Your task to perform on an android device: toggle notifications settings in the gmail app Image 0: 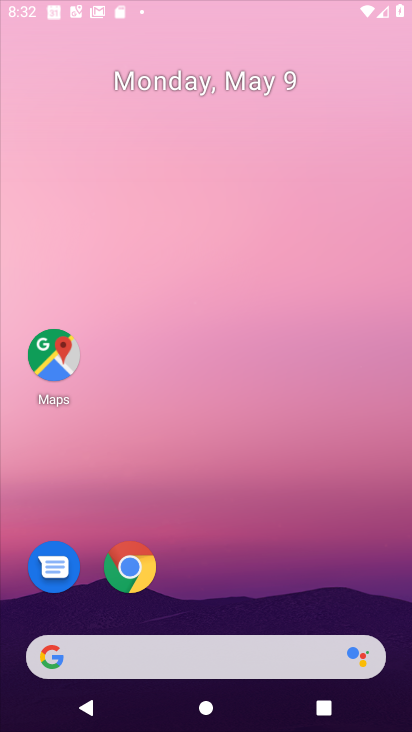
Step 0: drag from (224, 488) to (277, 185)
Your task to perform on an android device: toggle notifications settings in the gmail app Image 1: 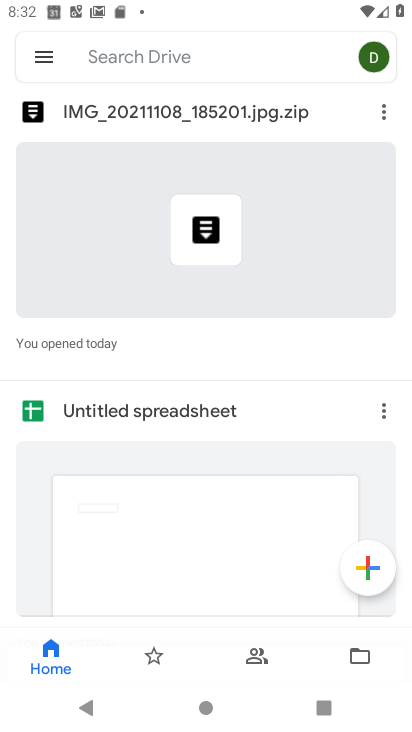
Step 1: drag from (217, 535) to (266, 298)
Your task to perform on an android device: toggle notifications settings in the gmail app Image 2: 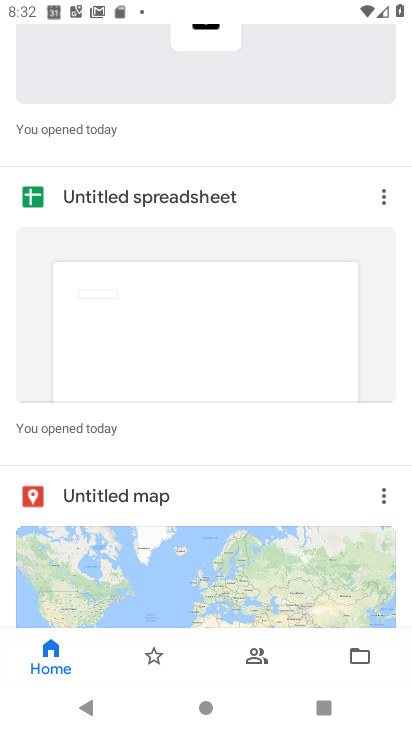
Step 2: drag from (211, 498) to (315, 209)
Your task to perform on an android device: toggle notifications settings in the gmail app Image 3: 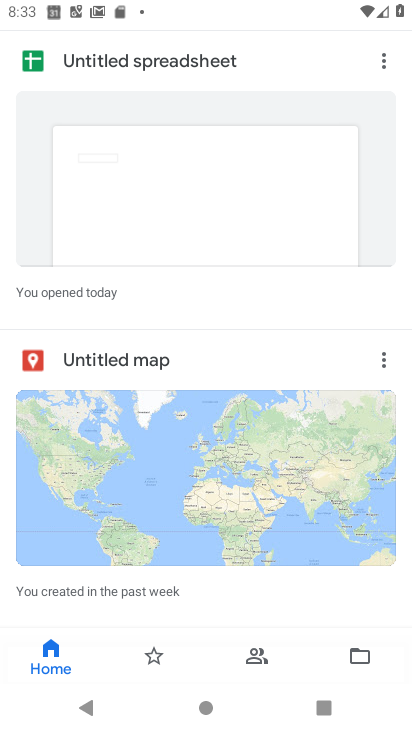
Step 3: drag from (211, 180) to (268, 706)
Your task to perform on an android device: toggle notifications settings in the gmail app Image 4: 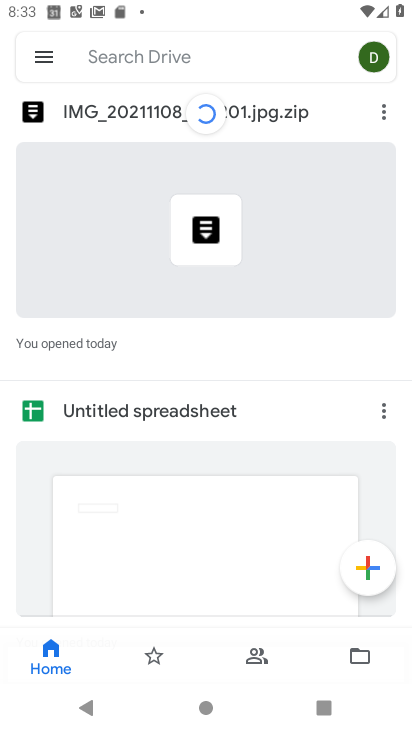
Step 4: press home button
Your task to perform on an android device: toggle notifications settings in the gmail app Image 5: 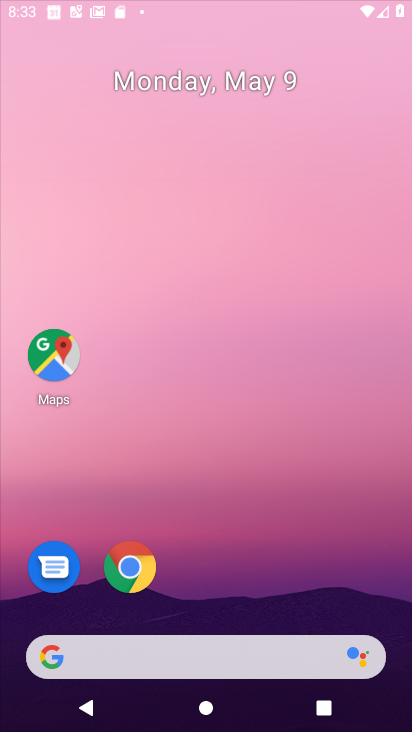
Step 5: drag from (194, 575) to (272, 34)
Your task to perform on an android device: toggle notifications settings in the gmail app Image 6: 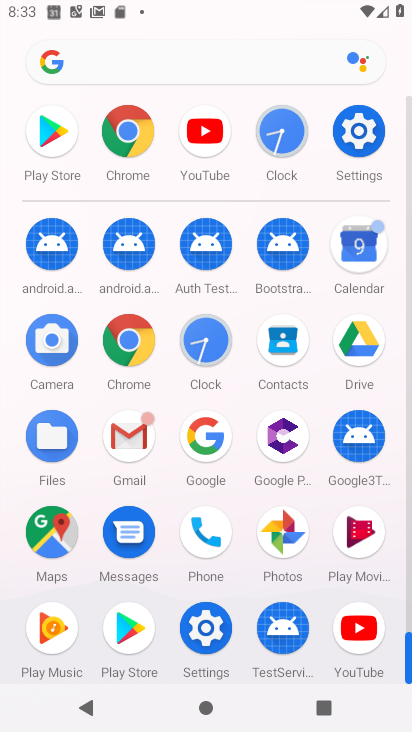
Step 6: click (123, 426)
Your task to perform on an android device: toggle notifications settings in the gmail app Image 7: 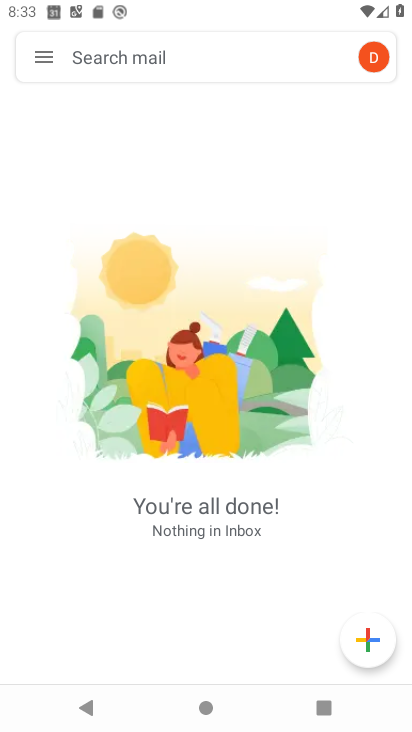
Step 7: click (40, 56)
Your task to perform on an android device: toggle notifications settings in the gmail app Image 8: 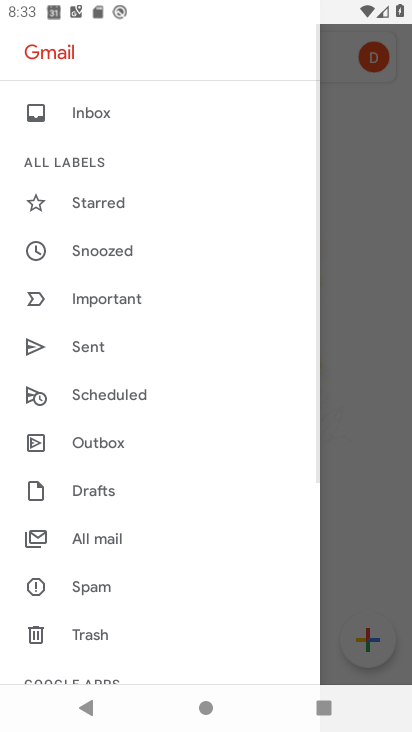
Step 8: drag from (117, 594) to (213, 80)
Your task to perform on an android device: toggle notifications settings in the gmail app Image 9: 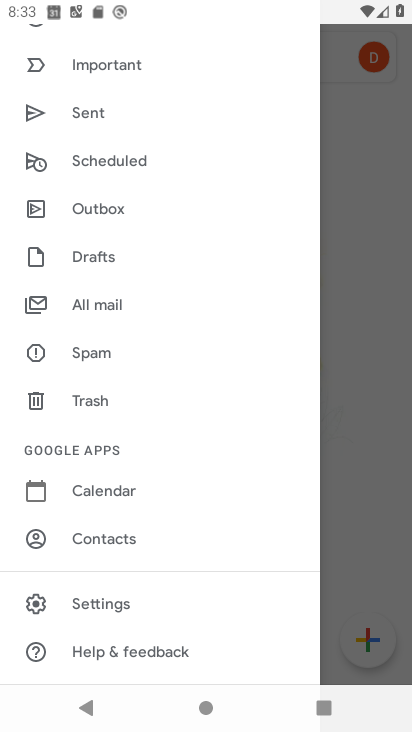
Step 9: click (87, 600)
Your task to perform on an android device: toggle notifications settings in the gmail app Image 10: 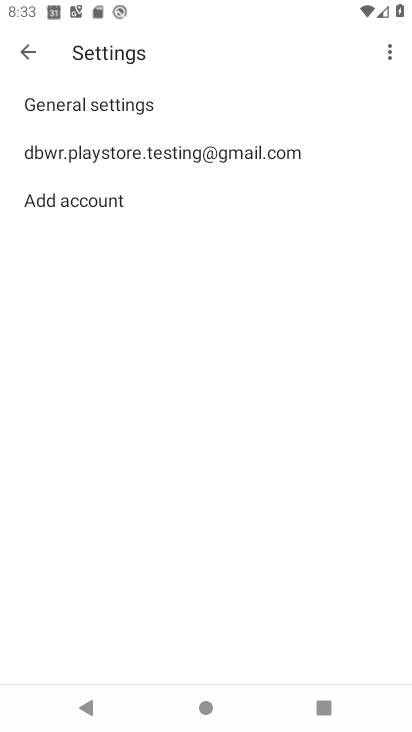
Step 10: click (157, 157)
Your task to perform on an android device: toggle notifications settings in the gmail app Image 11: 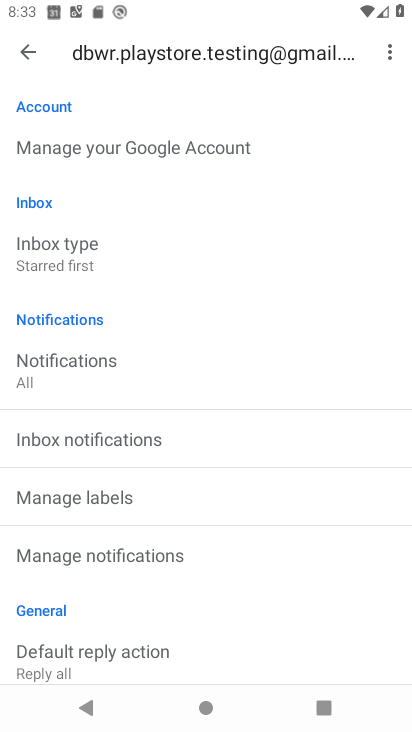
Step 11: drag from (111, 535) to (232, 75)
Your task to perform on an android device: toggle notifications settings in the gmail app Image 12: 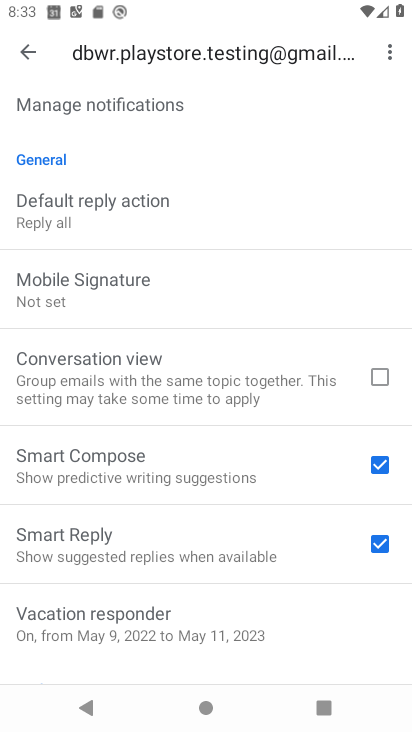
Step 12: click (169, 99)
Your task to perform on an android device: toggle notifications settings in the gmail app Image 13: 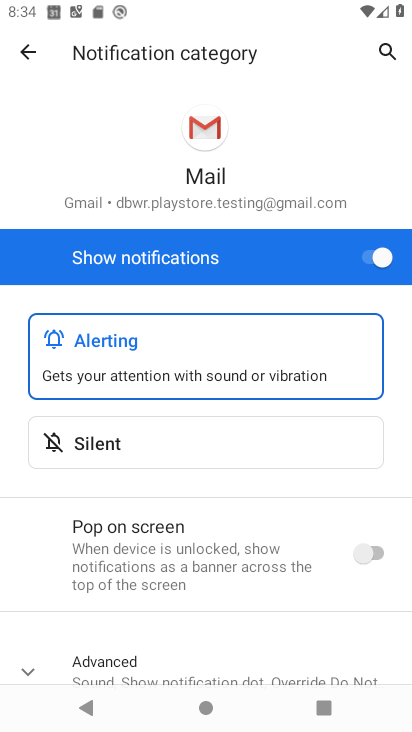
Step 13: click (368, 263)
Your task to perform on an android device: toggle notifications settings in the gmail app Image 14: 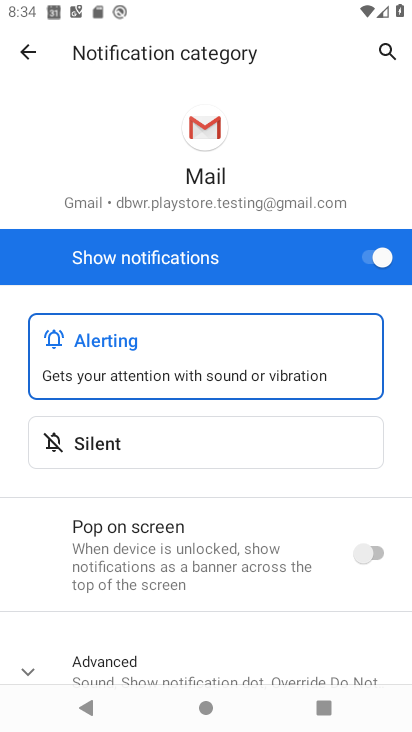
Step 14: task complete